Your task to perform on an android device: Open Google Maps Image 0: 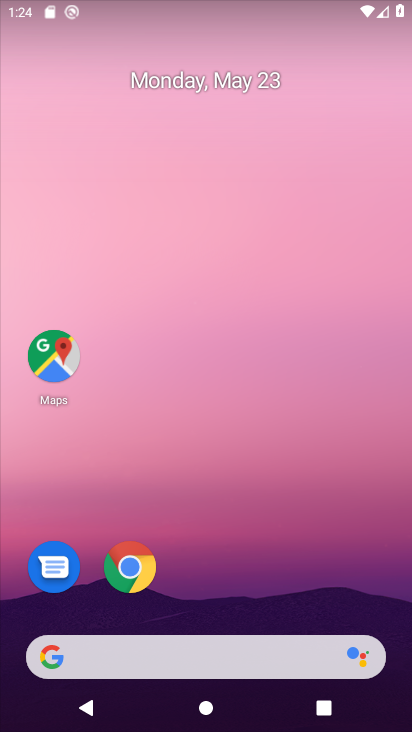
Step 0: drag from (250, 579) to (268, 178)
Your task to perform on an android device: Open Google Maps Image 1: 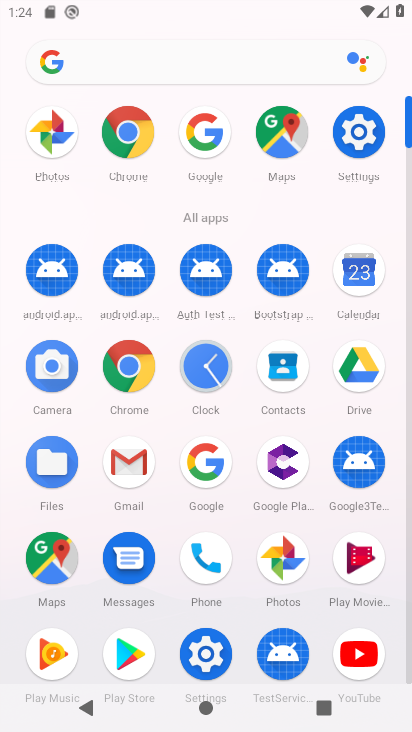
Step 1: click (129, 374)
Your task to perform on an android device: Open Google Maps Image 2: 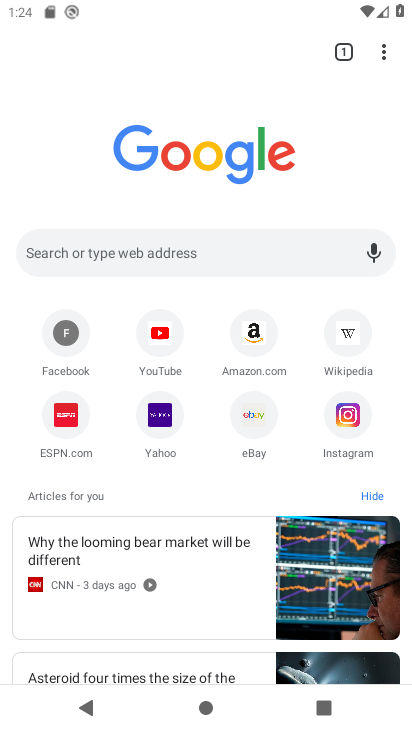
Step 2: press home button
Your task to perform on an android device: Open Google Maps Image 3: 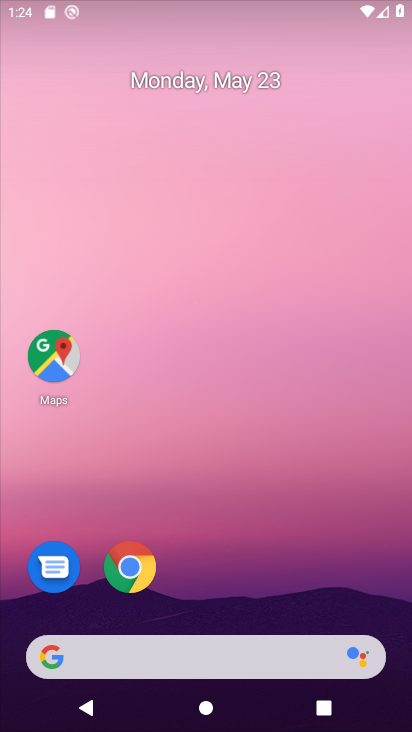
Step 3: drag from (238, 533) to (249, 192)
Your task to perform on an android device: Open Google Maps Image 4: 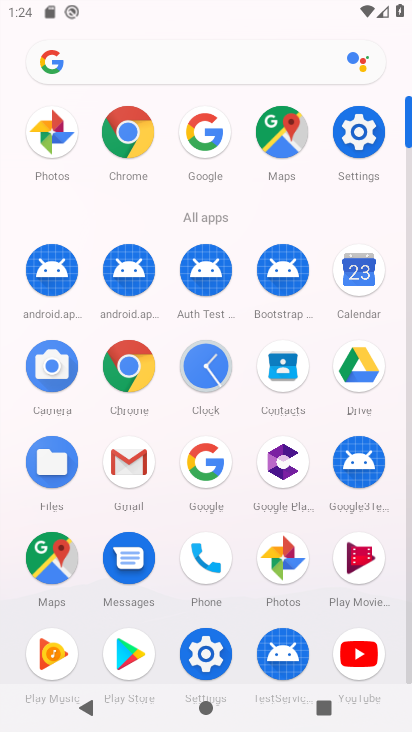
Step 4: click (40, 560)
Your task to perform on an android device: Open Google Maps Image 5: 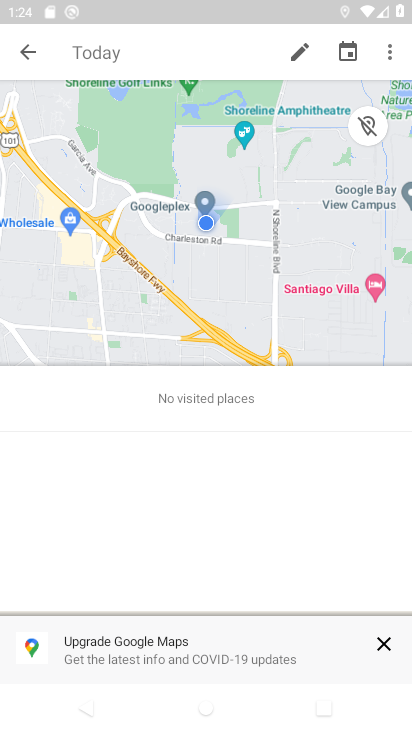
Step 5: click (20, 64)
Your task to perform on an android device: Open Google Maps Image 6: 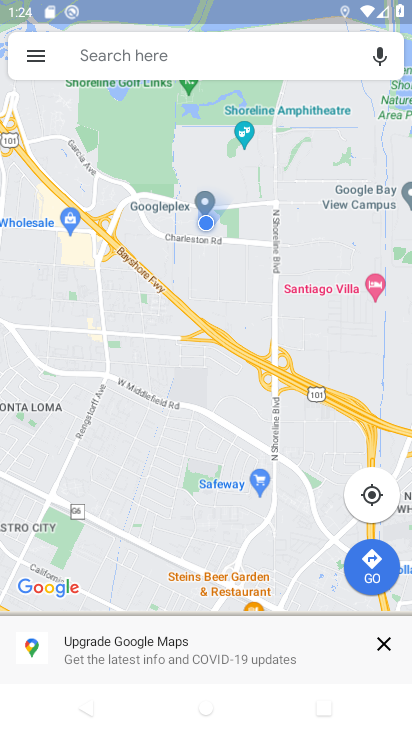
Step 6: click (385, 640)
Your task to perform on an android device: Open Google Maps Image 7: 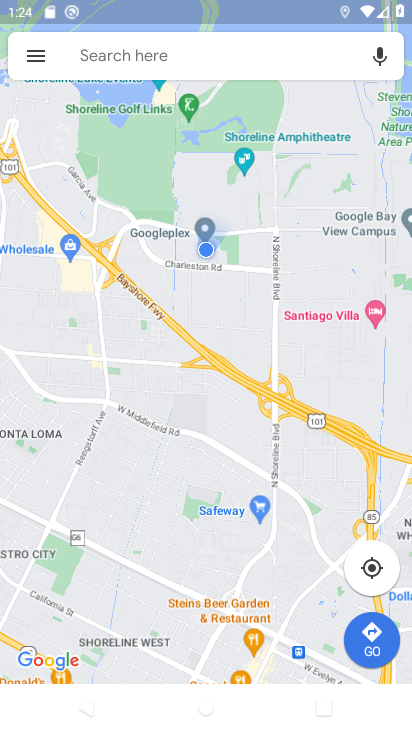
Step 7: task complete